Your task to perform on an android device: Go to wifi settings Image 0: 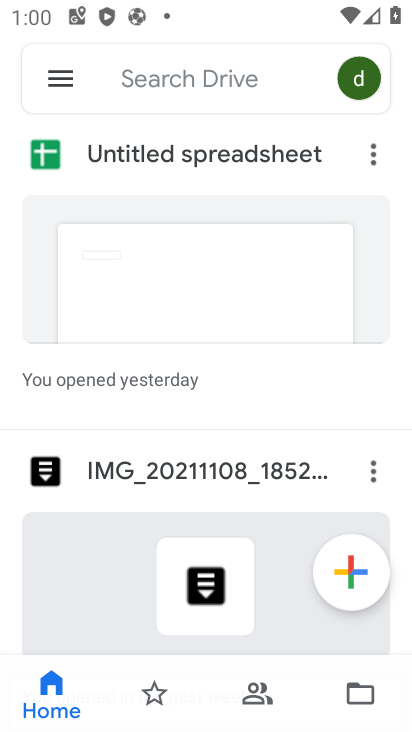
Step 0: press home button
Your task to perform on an android device: Go to wifi settings Image 1: 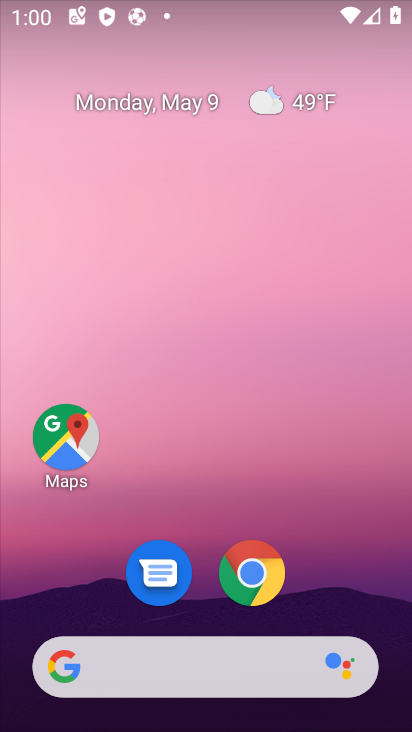
Step 1: drag from (264, 709) to (348, 1)
Your task to perform on an android device: Go to wifi settings Image 2: 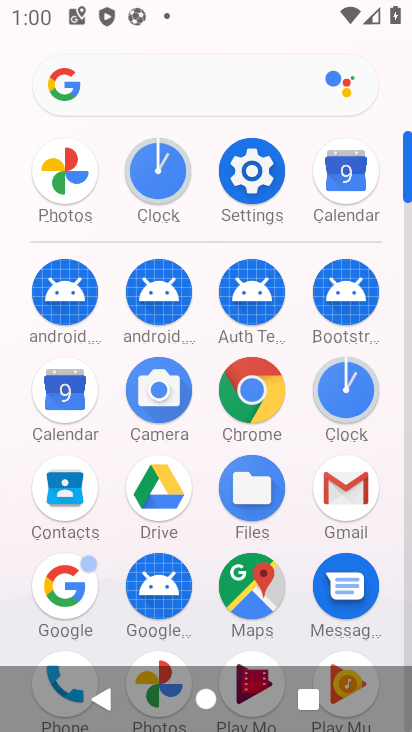
Step 2: click (253, 167)
Your task to perform on an android device: Go to wifi settings Image 3: 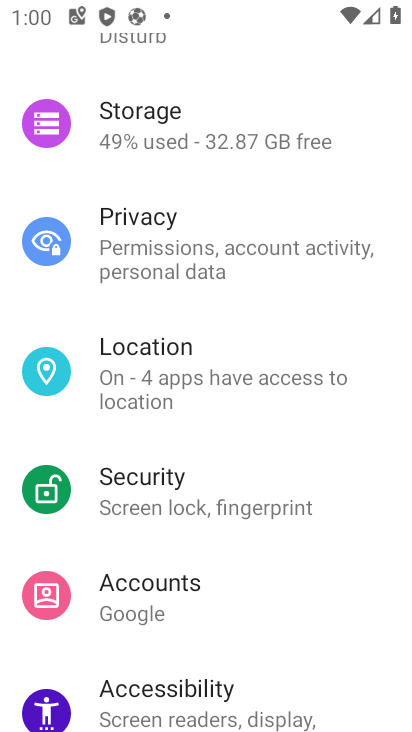
Step 3: drag from (269, 161) to (293, 547)
Your task to perform on an android device: Go to wifi settings Image 4: 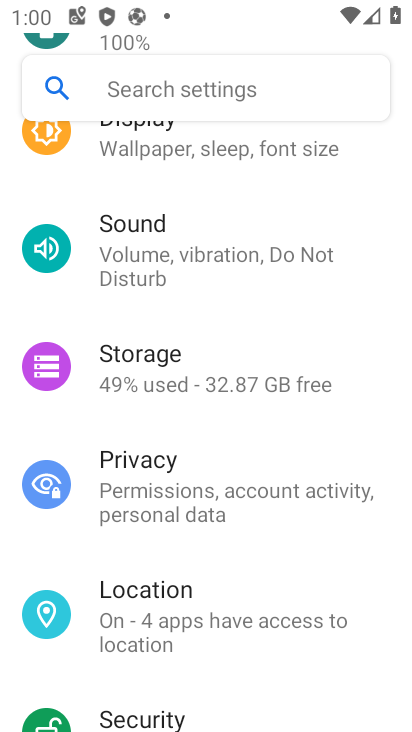
Step 4: drag from (267, 199) to (219, 691)
Your task to perform on an android device: Go to wifi settings Image 5: 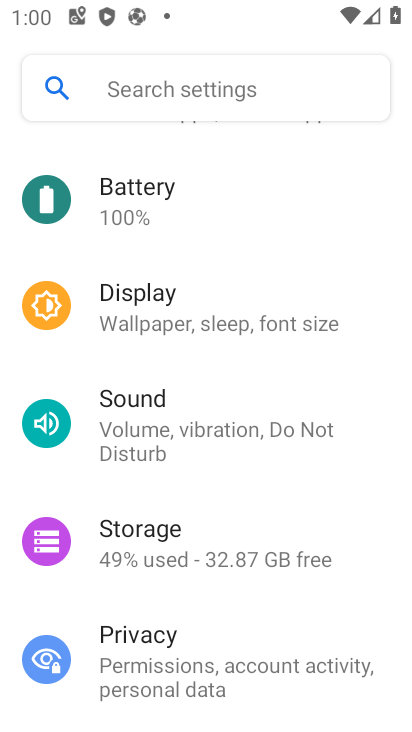
Step 5: drag from (263, 181) to (250, 714)
Your task to perform on an android device: Go to wifi settings Image 6: 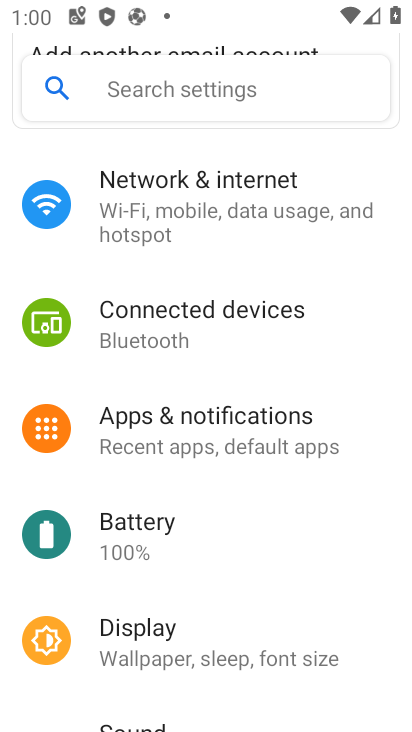
Step 6: drag from (309, 217) to (296, 682)
Your task to perform on an android device: Go to wifi settings Image 7: 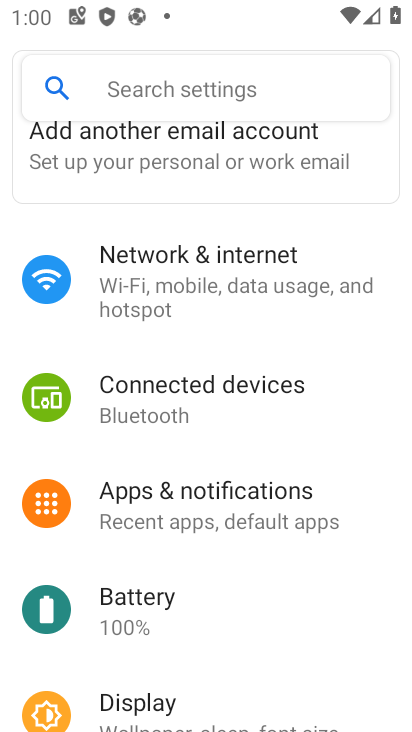
Step 7: drag from (313, 401) to (158, 711)
Your task to perform on an android device: Go to wifi settings Image 8: 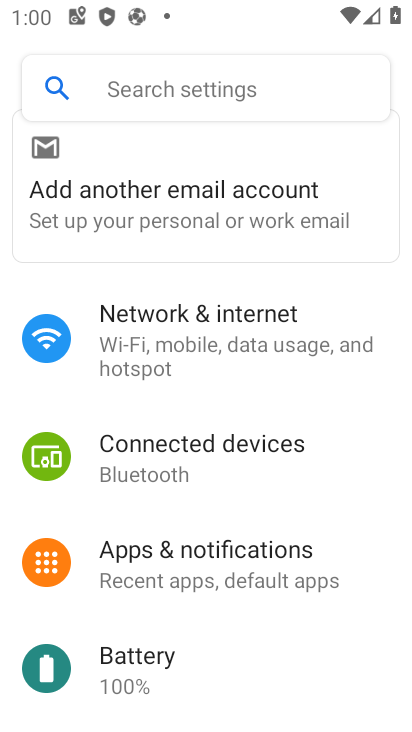
Step 8: click (228, 338)
Your task to perform on an android device: Go to wifi settings Image 9: 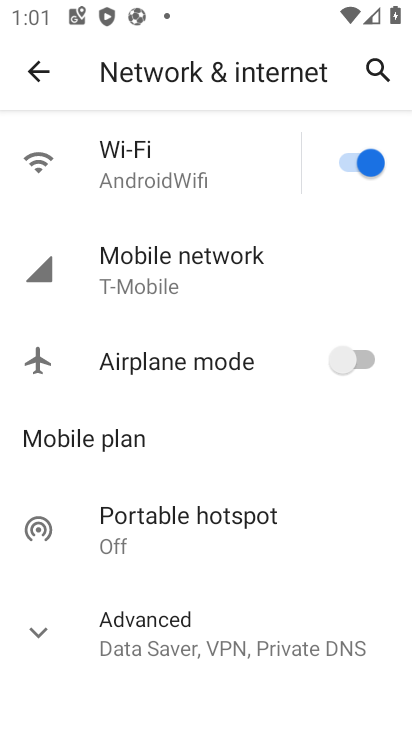
Step 9: click (162, 171)
Your task to perform on an android device: Go to wifi settings Image 10: 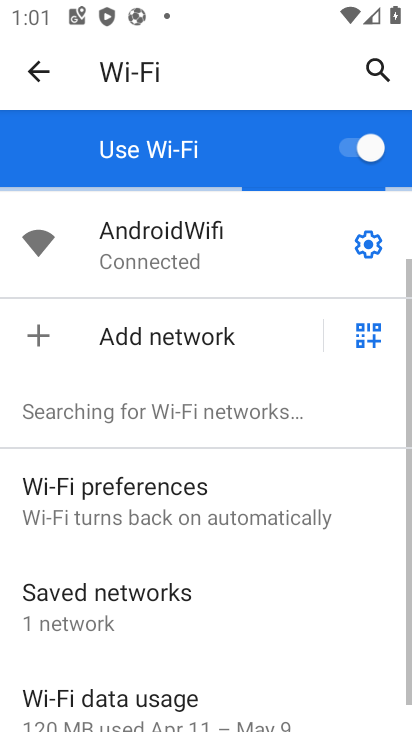
Step 10: click (362, 245)
Your task to perform on an android device: Go to wifi settings Image 11: 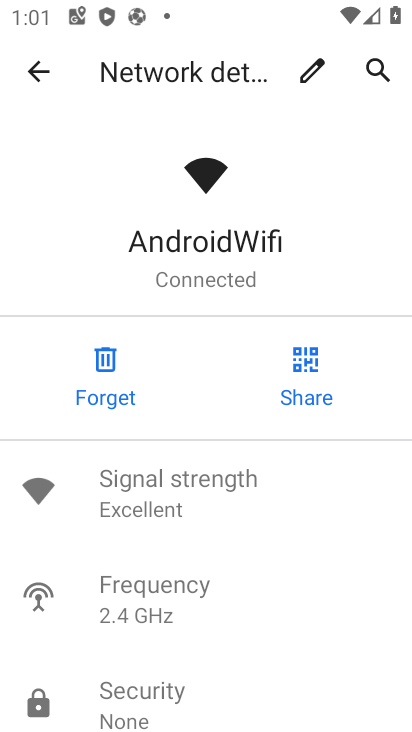
Step 11: task complete